Your task to perform on an android device: Set the phone to "Do not disturb". Image 0: 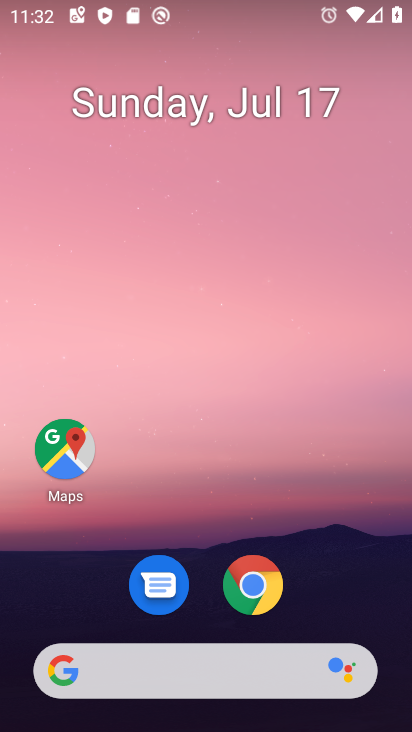
Step 0: drag from (334, 522) to (311, 59)
Your task to perform on an android device: Set the phone to "Do not disturb". Image 1: 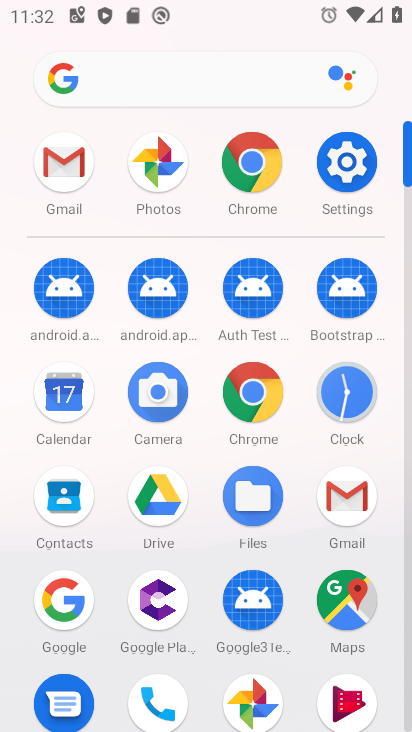
Step 1: click (349, 165)
Your task to perform on an android device: Set the phone to "Do not disturb". Image 2: 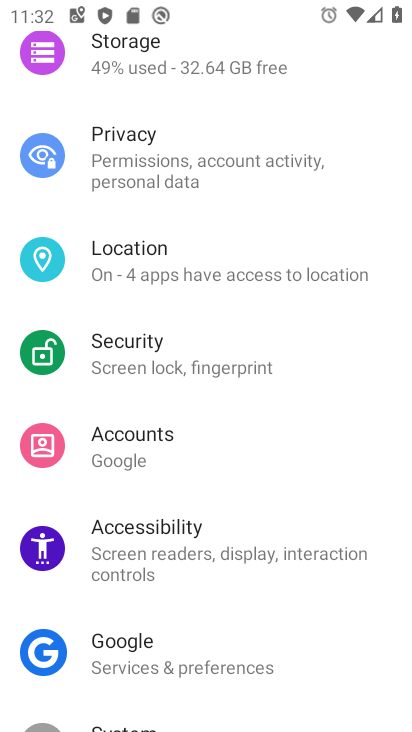
Step 2: drag from (234, 211) to (232, 622)
Your task to perform on an android device: Set the phone to "Do not disturb". Image 3: 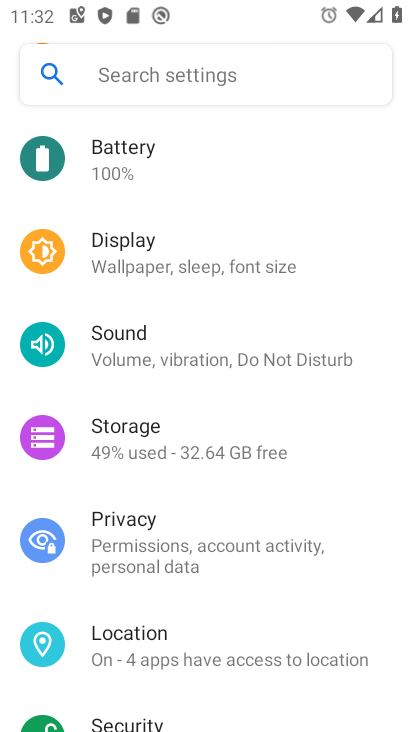
Step 3: click (239, 350)
Your task to perform on an android device: Set the phone to "Do not disturb". Image 4: 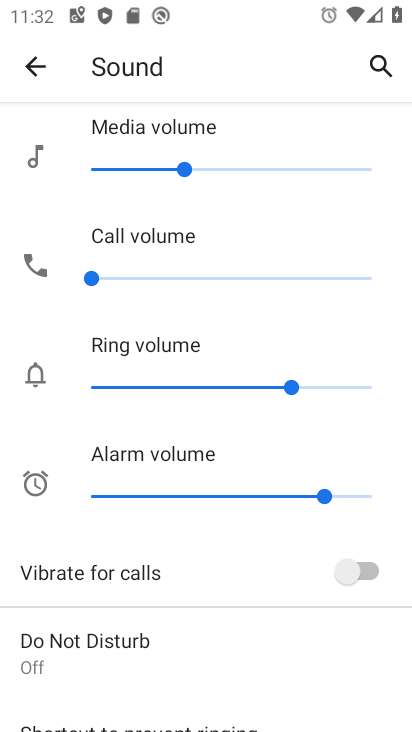
Step 4: click (113, 651)
Your task to perform on an android device: Set the phone to "Do not disturb". Image 5: 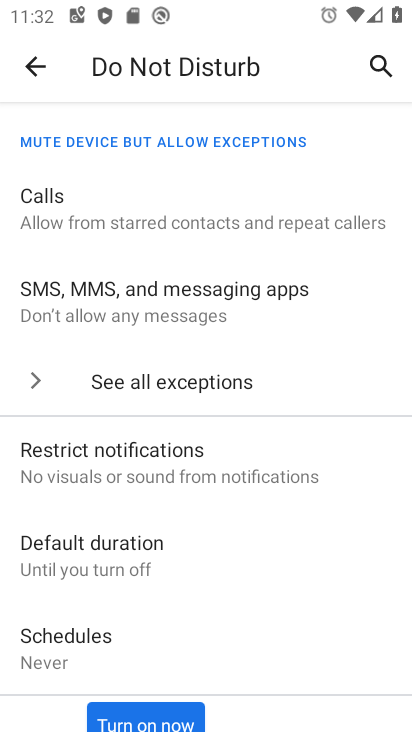
Step 5: click (191, 729)
Your task to perform on an android device: Set the phone to "Do not disturb". Image 6: 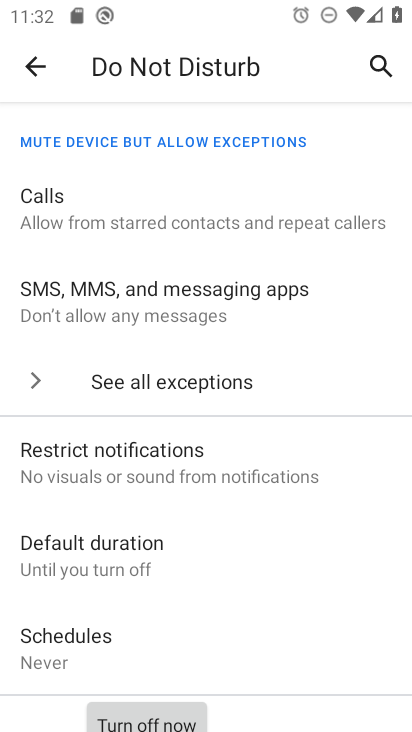
Step 6: task complete